Your task to perform on an android device: Go to network settings Image 0: 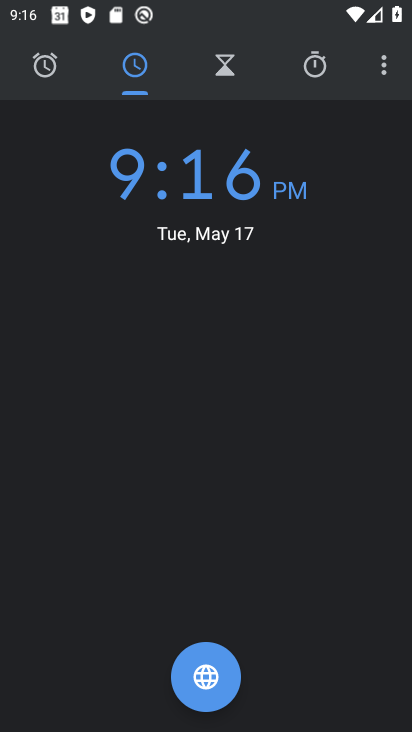
Step 0: press home button
Your task to perform on an android device: Go to network settings Image 1: 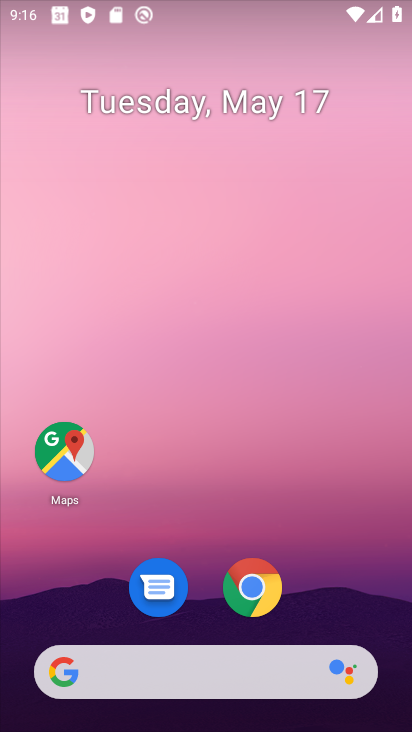
Step 1: drag from (221, 554) to (168, 133)
Your task to perform on an android device: Go to network settings Image 2: 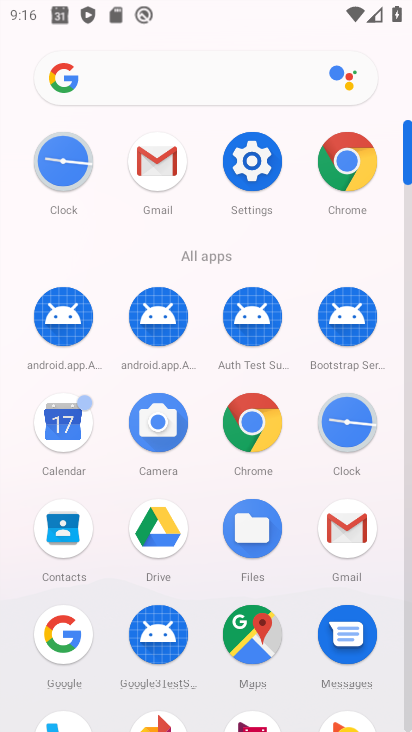
Step 2: click (262, 186)
Your task to perform on an android device: Go to network settings Image 3: 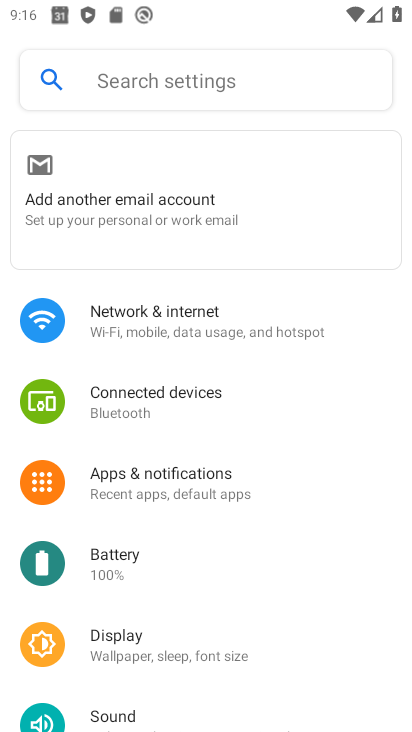
Step 3: click (183, 331)
Your task to perform on an android device: Go to network settings Image 4: 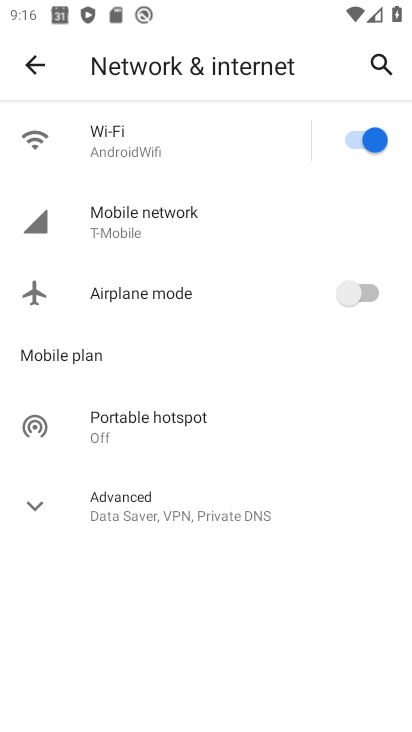
Step 4: click (167, 241)
Your task to perform on an android device: Go to network settings Image 5: 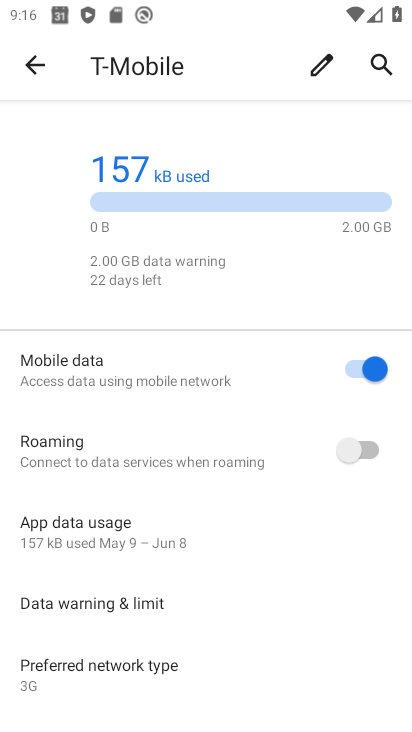
Step 5: task complete